Your task to perform on an android device: Open Maps and search for coffee Image 0: 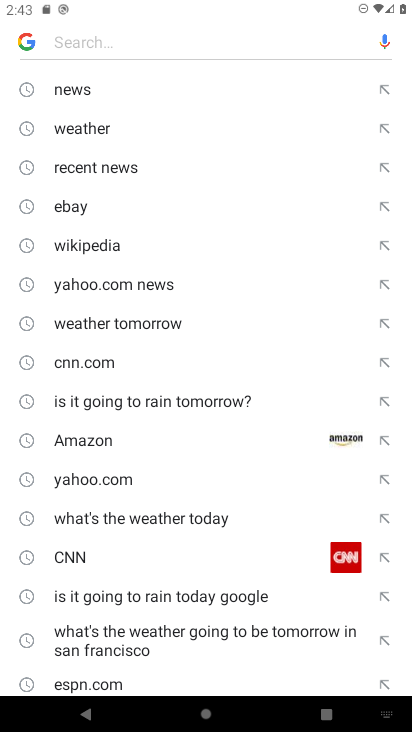
Step 0: press home button
Your task to perform on an android device: Open Maps and search for coffee Image 1: 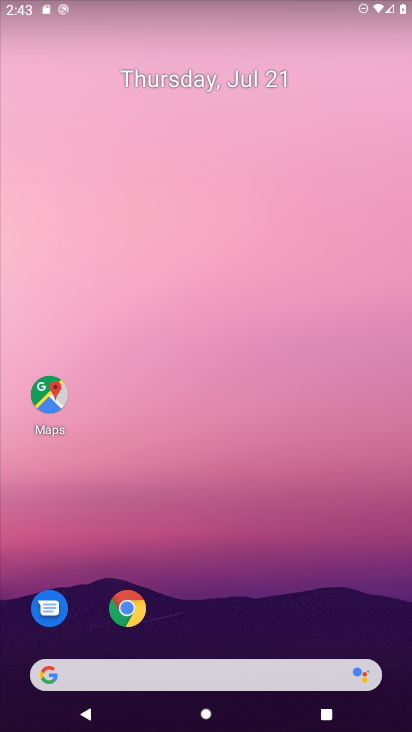
Step 1: click (51, 403)
Your task to perform on an android device: Open Maps and search for coffee Image 2: 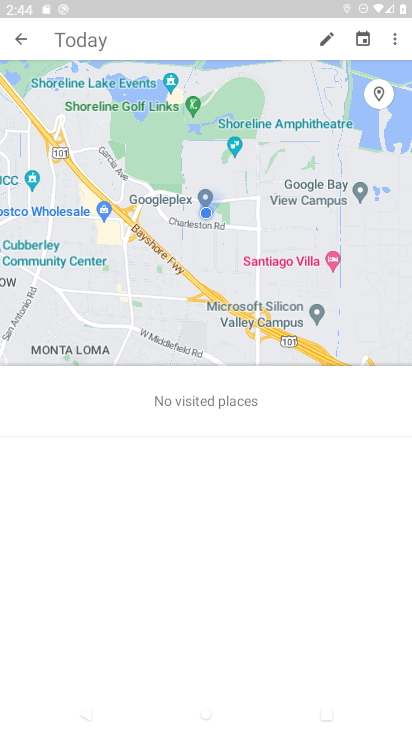
Step 2: click (18, 39)
Your task to perform on an android device: Open Maps and search for coffee Image 3: 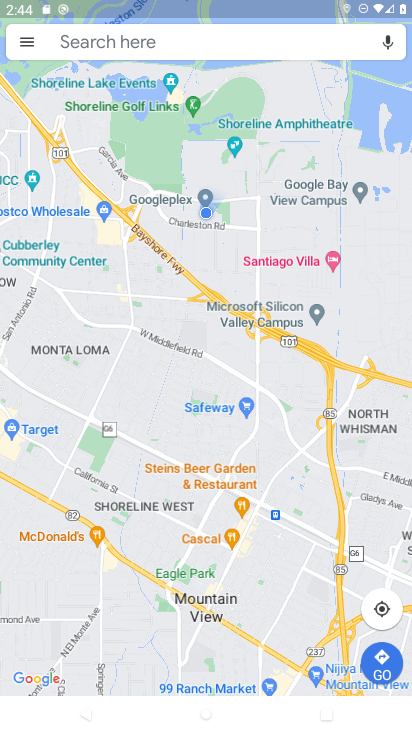
Step 3: click (101, 36)
Your task to perform on an android device: Open Maps and search for coffee Image 4: 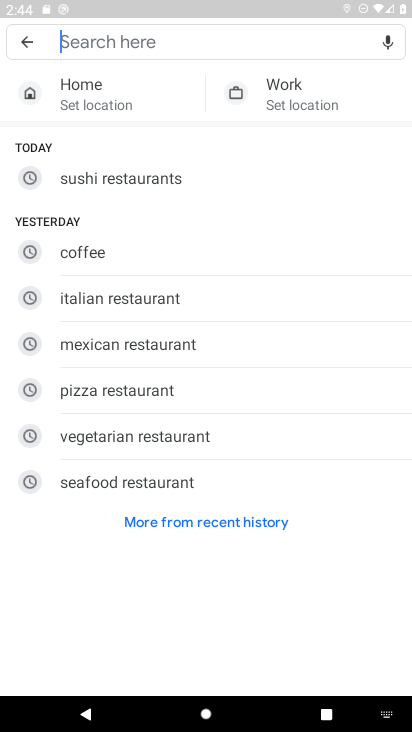
Step 4: click (122, 252)
Your task to perform on an android device: Open Maps and search for coffee Image 5: 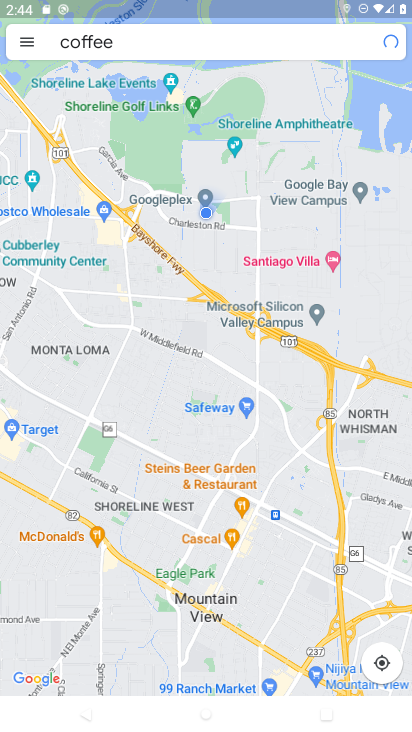
Step 5: task complete